Your task to perform on an android device: turn vacation reply on in the gmail app Image 0: 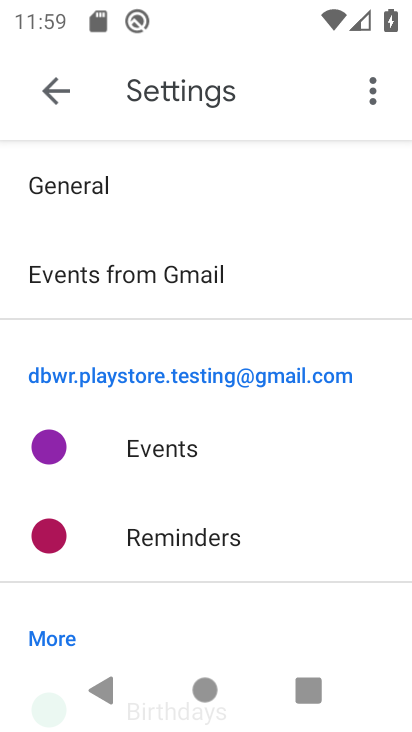
Step 0: press home button
Your task to perform on an android device: turn vacation reply on in the gmail app Image 1: 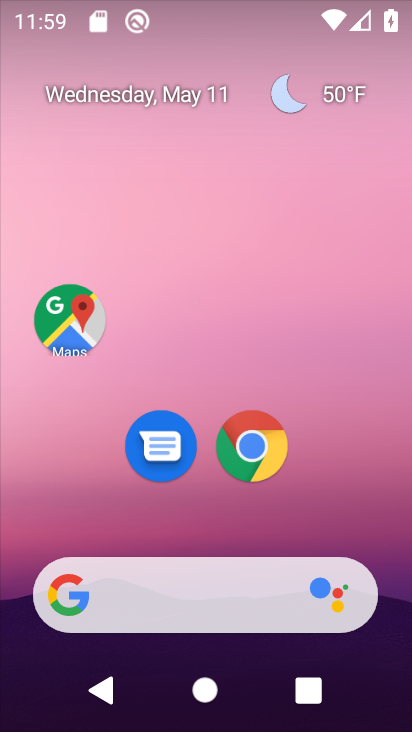
Step 1: drag from (309, 540) to (303, 97)
Your task to perform on an android device: turn vacation reply on in the gmail app Image 2: 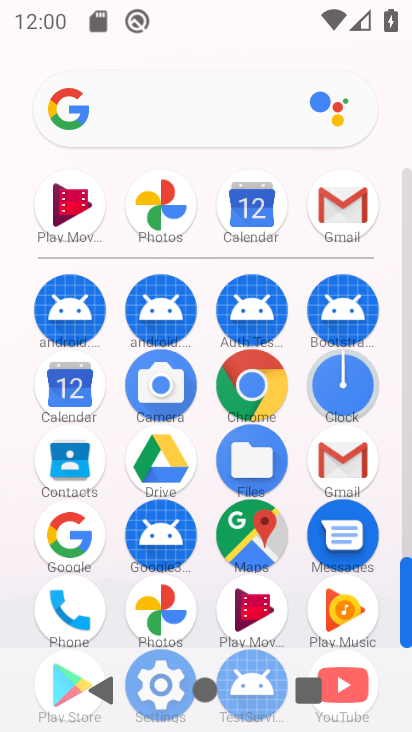
Step 2: click (349, 462)
Your task to perform on an android device: turn vacation reply on in the gmail app Image 3: 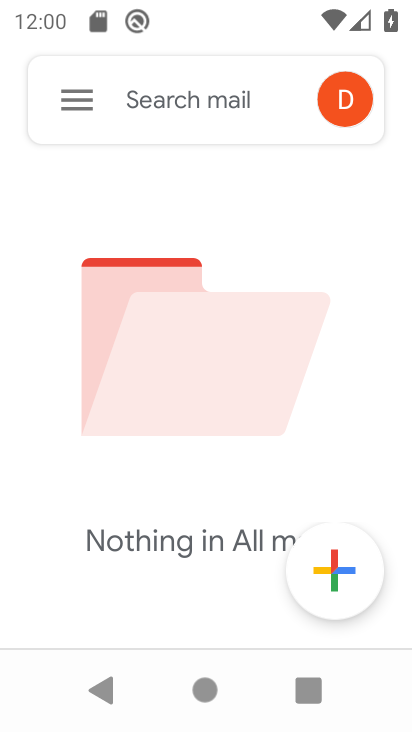
Step 3: click (78, 99)
Your task to perform on an android device: turn vacation reply on in the gmail app Image 4: 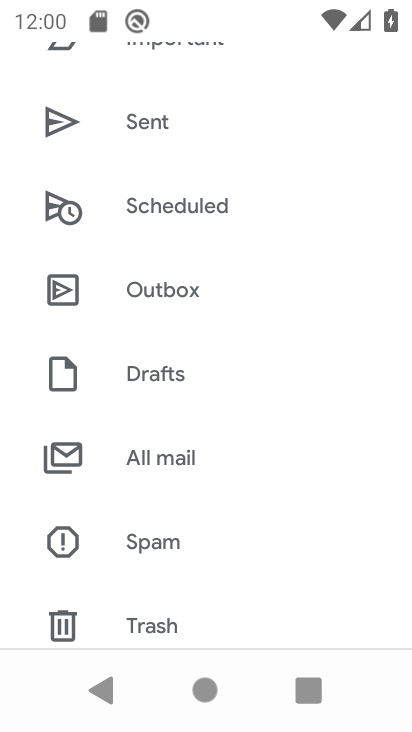
Step 4: drag from (241, 568) to (215, 127)
Your task to perform on an android device: turn vacation reply on in the gmail app Image 5: 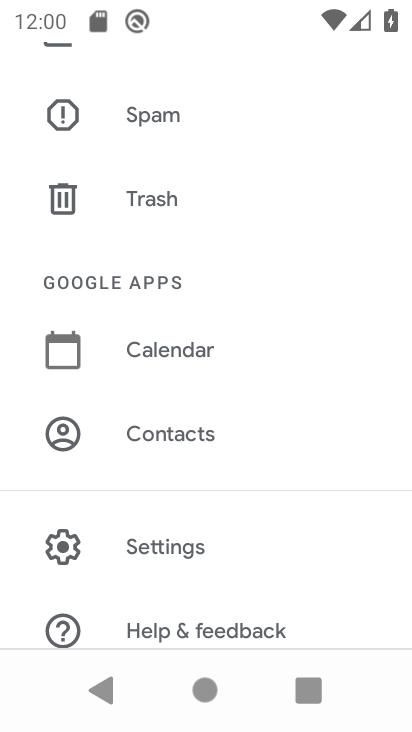
Step 5: click (195, 565)
Your task to perform on an android device: turn vacation reply on in the gmail app Image 6: 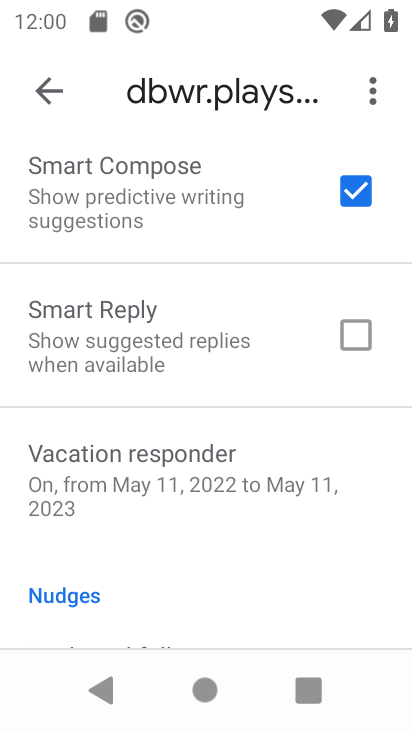
Step 6: click (242, 493)
Your task to perform on an android device: turn vacation reply on in the gmail app Image 7: 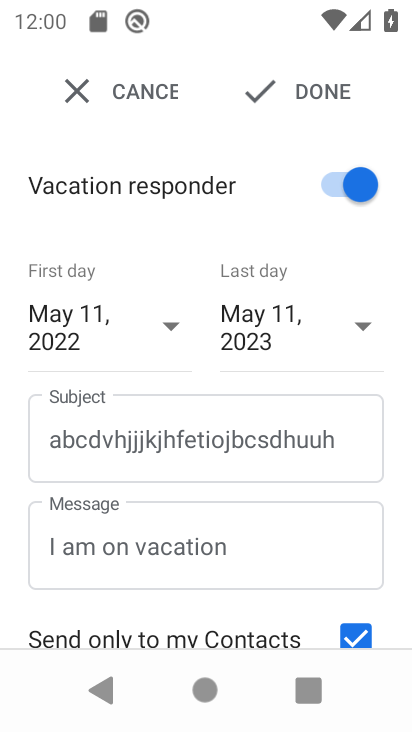
Step 7: click (322, 91)
Your task to perform on an android device: turn vacation reply on in the gmail app Image 8: 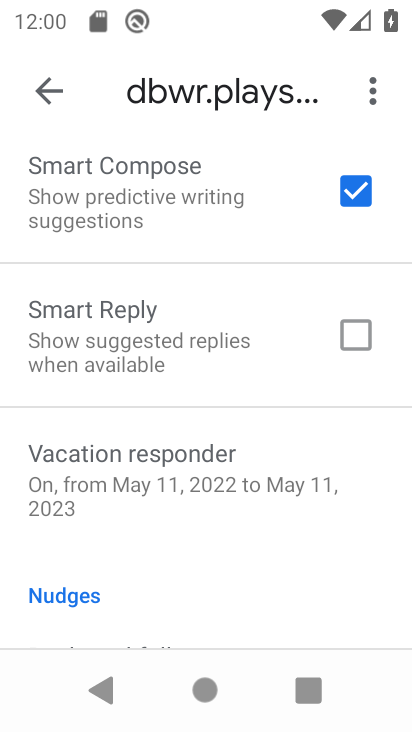
Step 8: task complete